Your task to perform on an android device: search for starred emails in the gmail app Image 0: 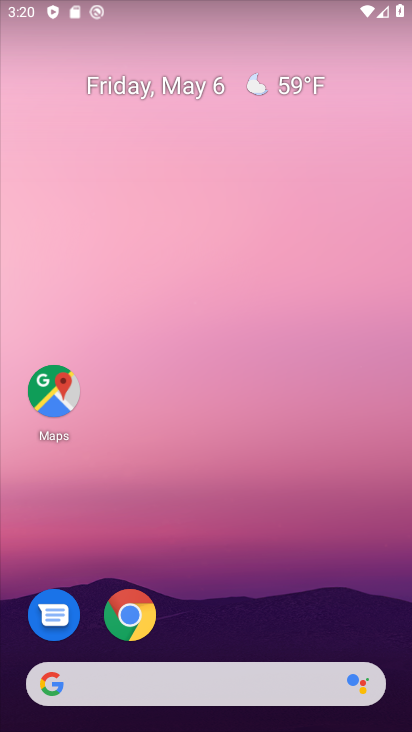
Step 0: drag from (332, 634) to (357, 24)
Your task to perform on an android device: search for starred emails in the gmail app Image 1: 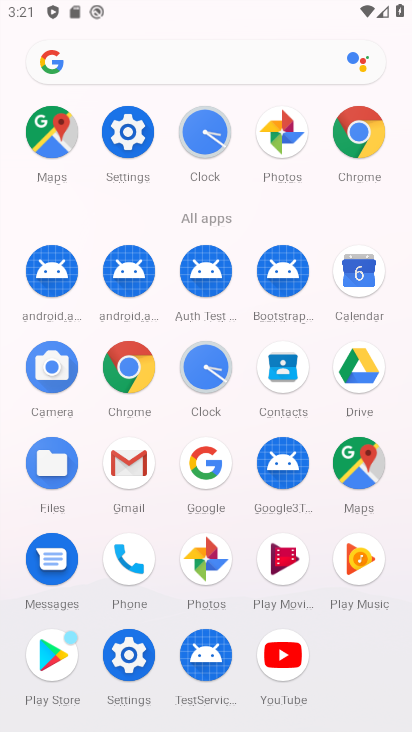
Step 1: click (130, 464)
Your task to perform on an android device: search for starred emails in the gmail app Image 2: 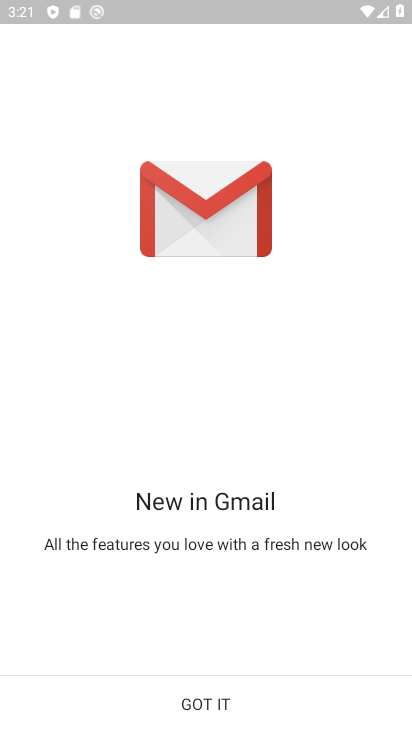
Step 2: click (202, 701)
Your task to perform on an android device: search for starred emails in the gmail app Image 3: 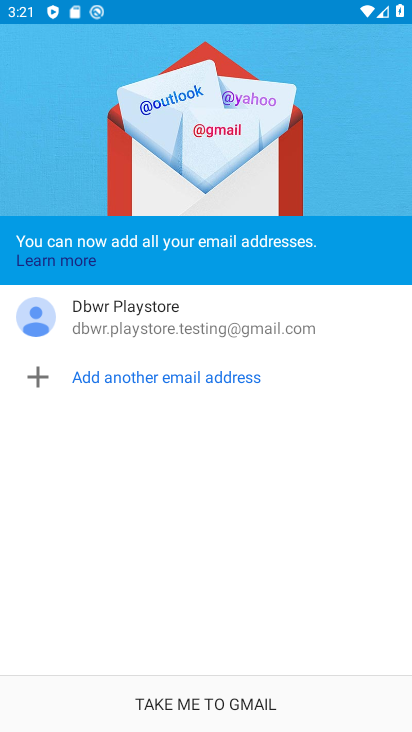
Step 3: click (202, 701)
Your task to perform on an android device: search for starred emails in the gmail app Image 4: 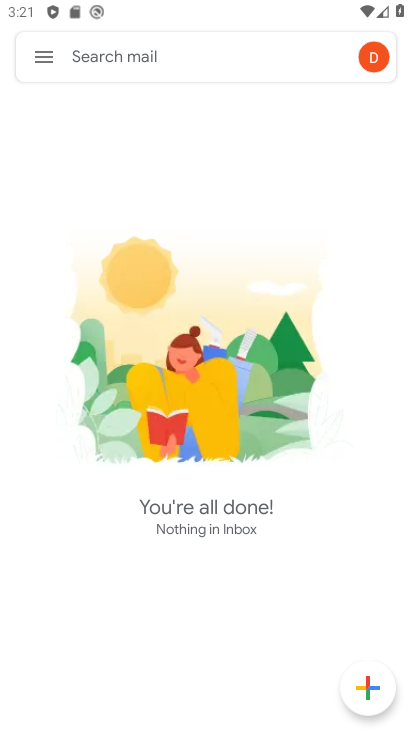
Step 4: click (42, 58)
Your task to perform on an android device: search for starred emails in the gmail app Image 5: 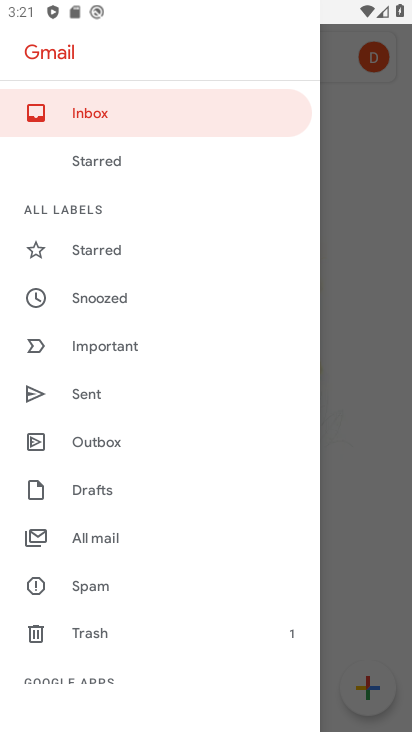
Step 5: click (98, 248)
Your task to perform on an android device: search for starred emails in the gmail app Image 6: 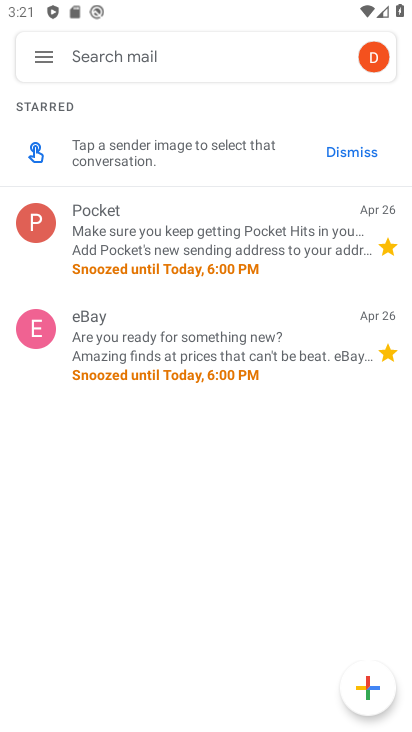
Step 6: task complete